Your task to perform on an android device: Search for sushi restaurants on Maps Image 0: 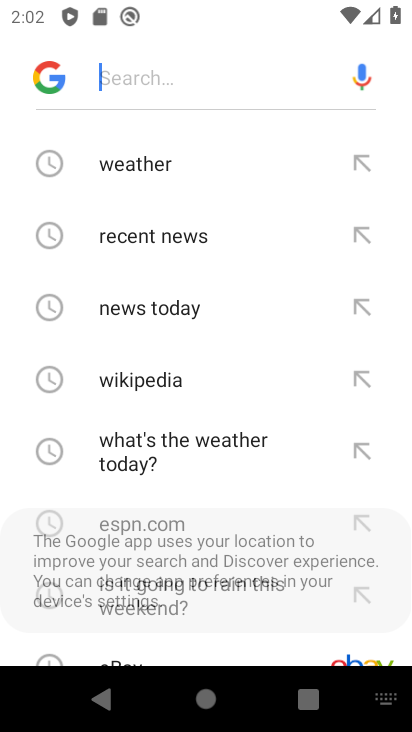
Step 0: press back button
Your task to perform on an android device: Search for sushi restaurants on Maps Image 1: 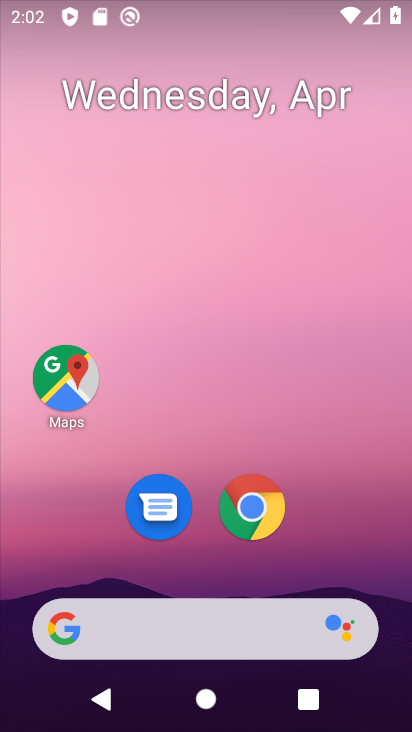
Step 1: click (76, 388)
Your task to perform on an android device: Search for sushi restaurants on Maps Image 2: 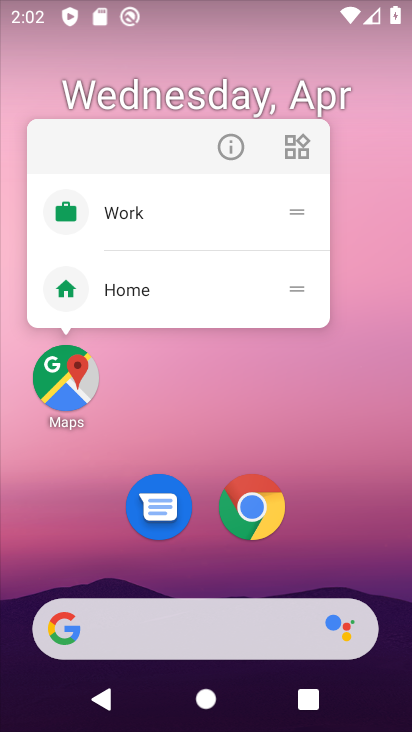
Step 2: click (78, 396)
Your task to perform on an android device: Search for sushi restaurants on Maps Image 3: 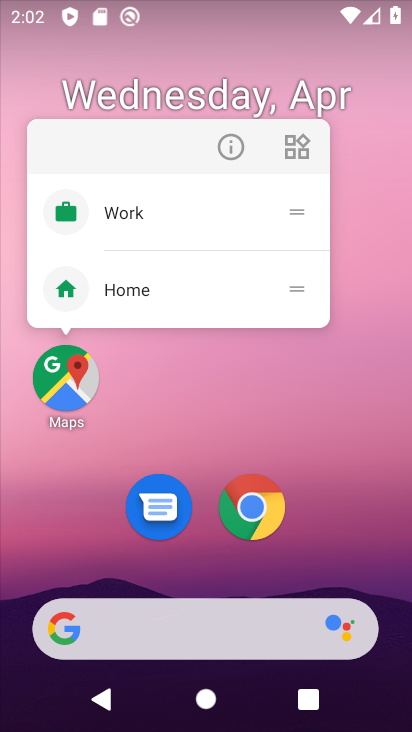
Step 3: click (61, 413)
Your task to perform on an android device: Search for sushi restaurants on Maps Image 4: 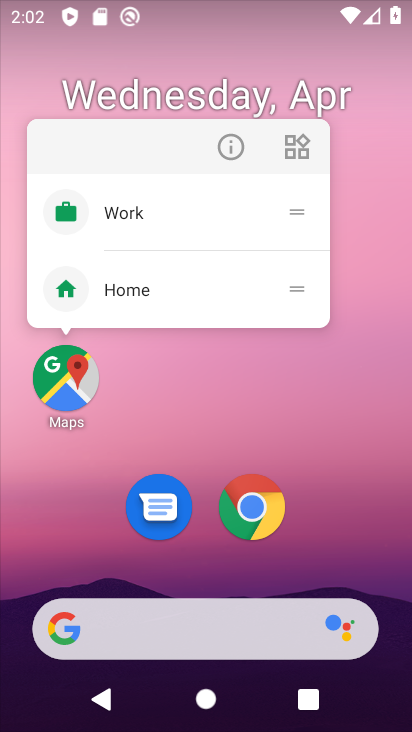
Step 4: click (73, 368)
Your task to perform on an android device: Search for sushi restaurants on Maps Image 5: 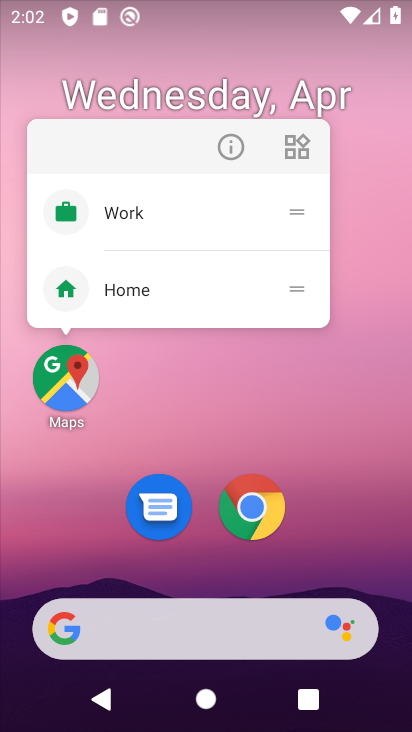
Step 5: click (62, 383)
Your task to perform on an android device: Search for sushi restaurants on Maps Image 6: 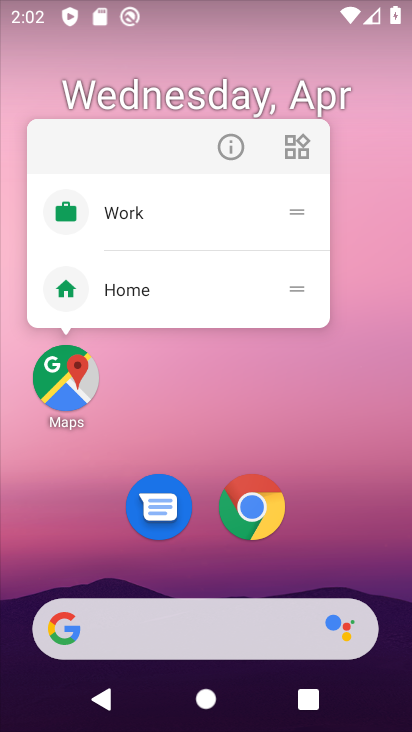
Step 6: click (73, 397)
Your task to perform on an android device: Search for sushi restaurants on Maps Image 7: 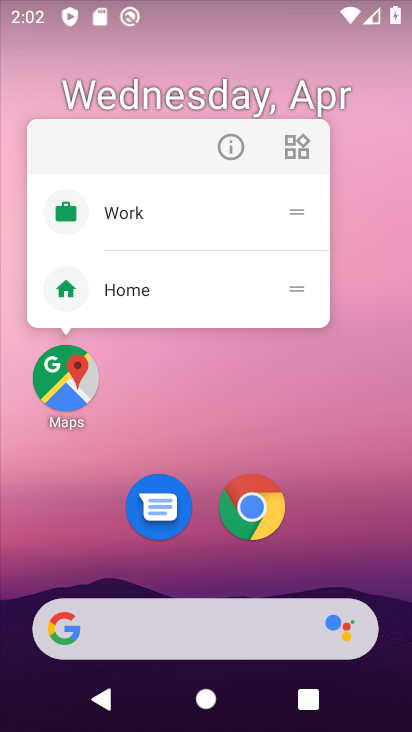
Step 7: click (86, 383)
Your task to perform on an android device: Search for sushi restaurants on Maps Image 8: 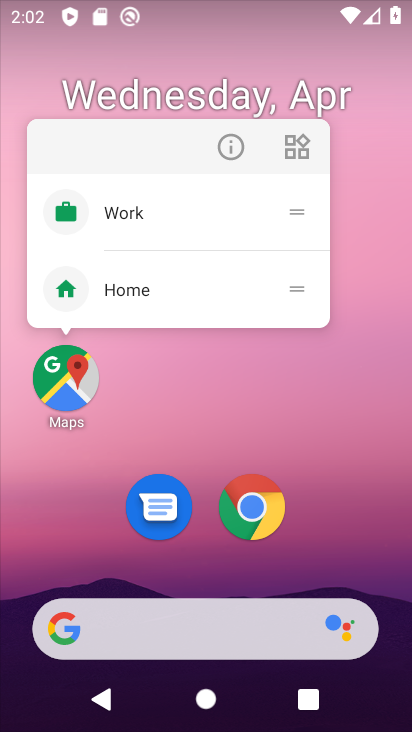
Step 8: click (66, 367)
Your task to perform on an android device: Search for sushi restaurants on Maps Image 9: 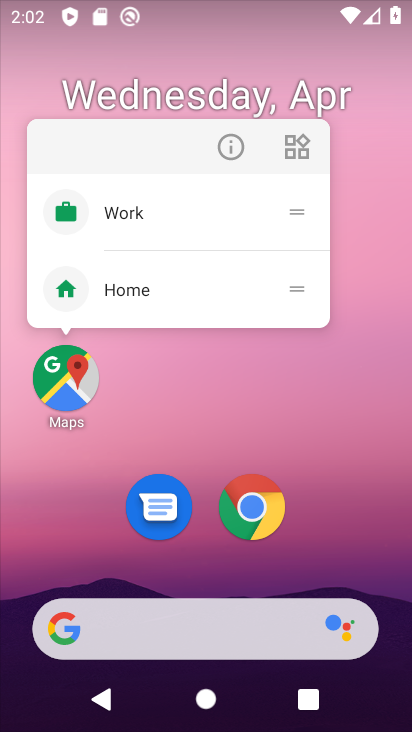
Step 9: click (47, 374)
Your task to perform on an android device: Search for sushi restaurants on Maps Image 10: 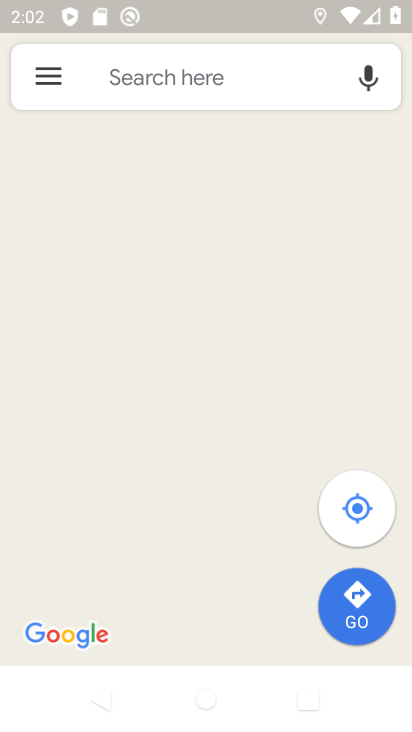
Step 10: click (200, 89)
Your task to perform on an android device: Search for sushi restaurants on Maps Image 11: 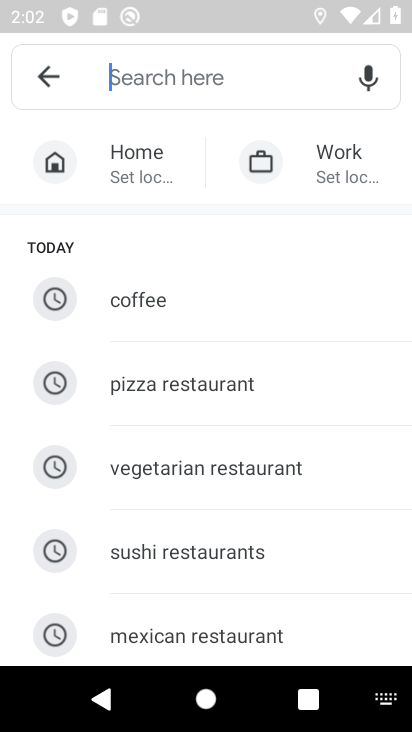
Step 11: type "sushi restaurants "
Your task to perform on an android device: Search for sushi restaurants on Maps Image 12: 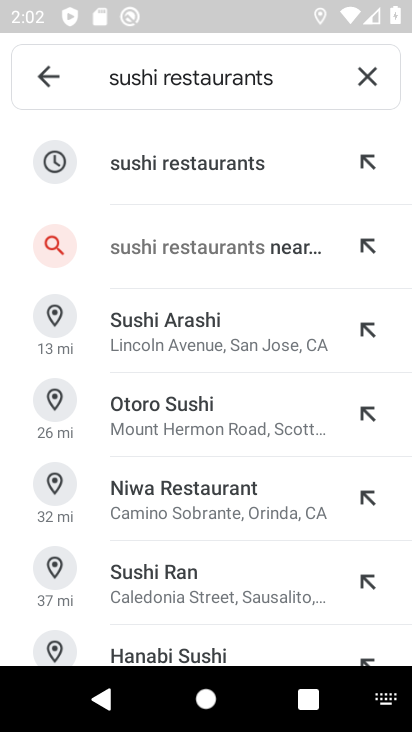
Step 12: click (233, 168)
Your task to perform on an android device: Search for sushi restaurants on Maps Image 13: 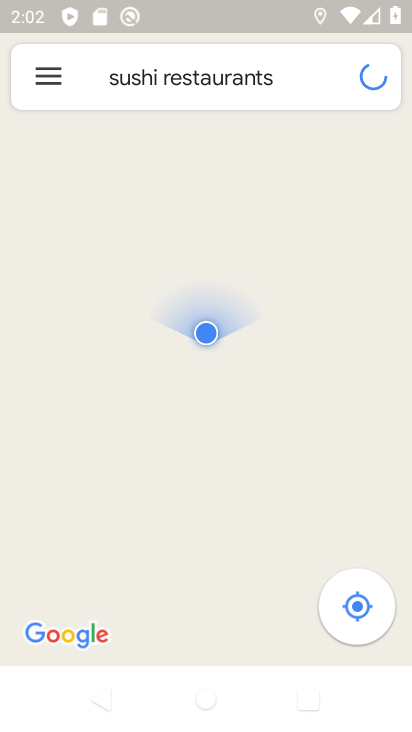
Step 13: click (233, 168)
Your task to perform on an android device: Search for sushi restaurants on Maps Image 14: 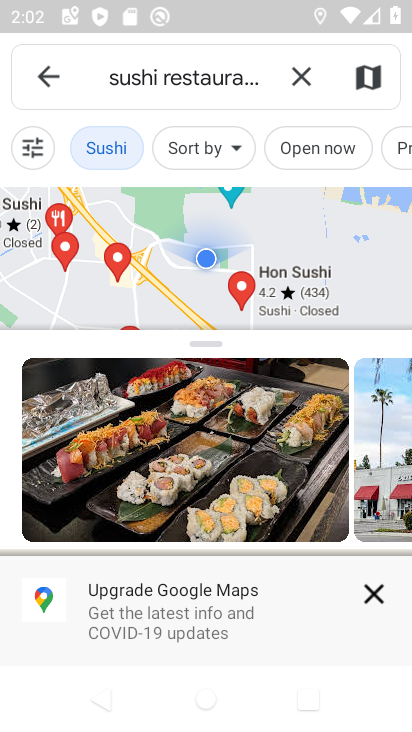
Step 14: click (376, 601)
Your task to perform on an android device: Search for sushi restaurants on Maps Image 15: 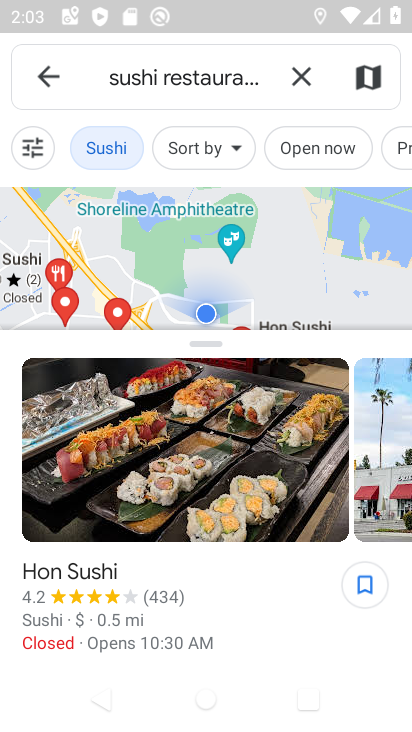
Step 15: task complete